Your task to perform on an android device: set an alarm Image 0: 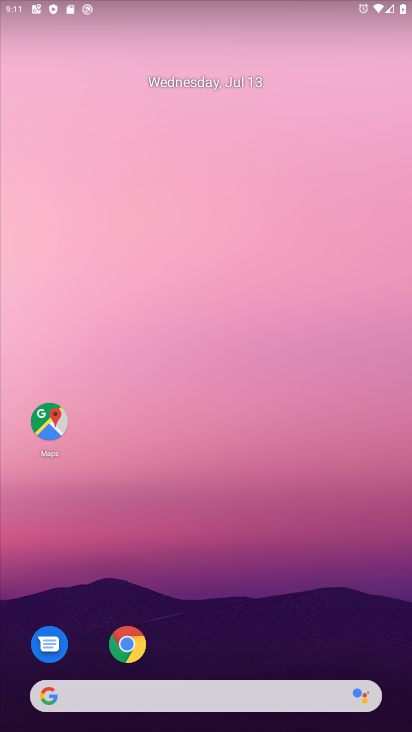
Step 0: drag from (225, 728) to (201, 139)
Your task to perform on an android device: set an alarm Image 1: 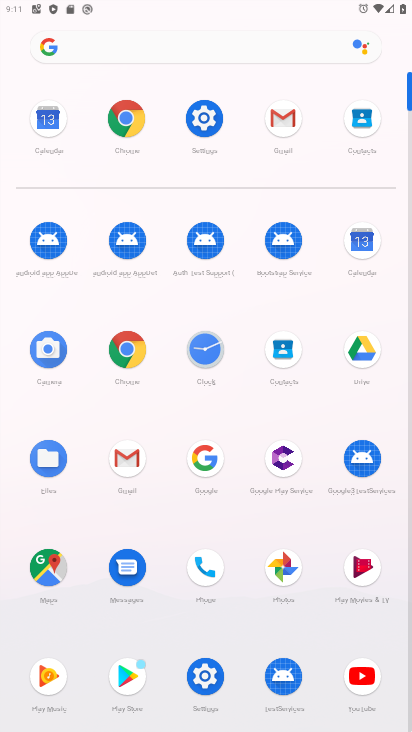
Step 1: click (206, 349)
Your task to perform on an android device: set an alarm Image 2: 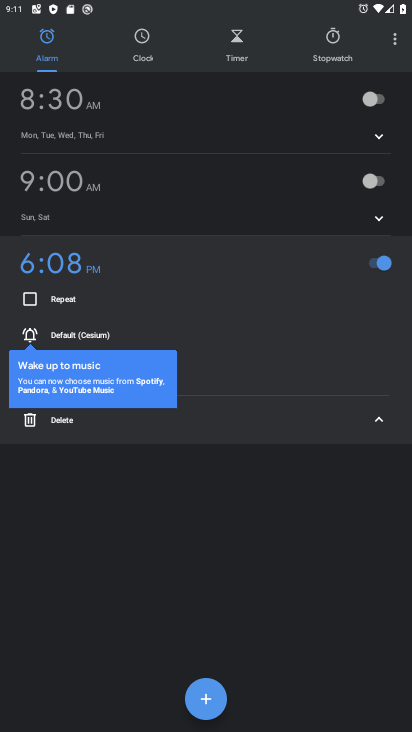
Step 2: click (208, 697)
Your task to perform on an android device: set an alarm Image 3: 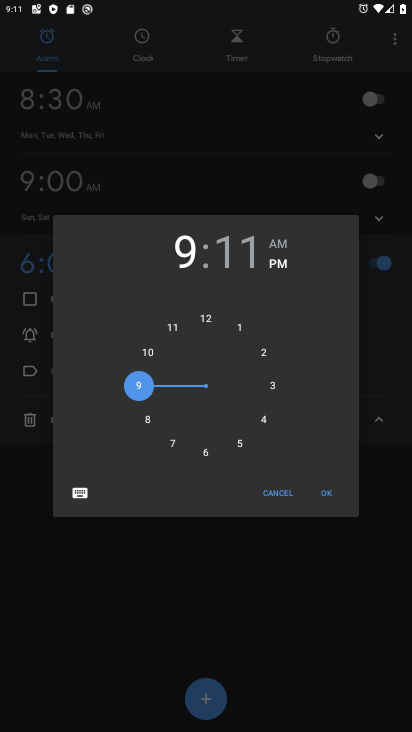
Step 3: click (208, 452)
Your task to perform on an android device: set an alarm Image 4: 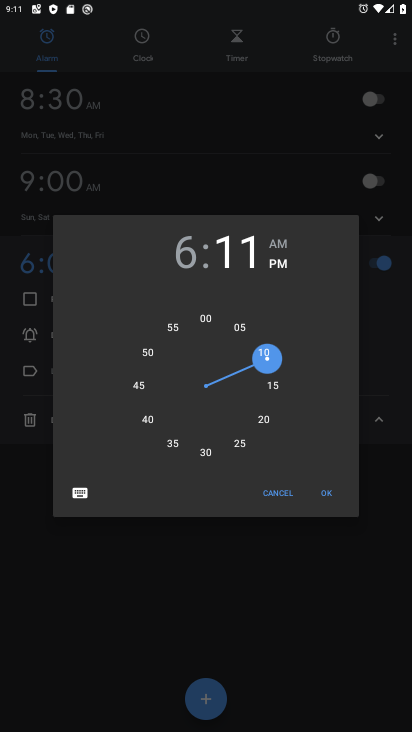
Step 4: click (327, 492)
Your task to perform on an android device: set an alarm Image 5: 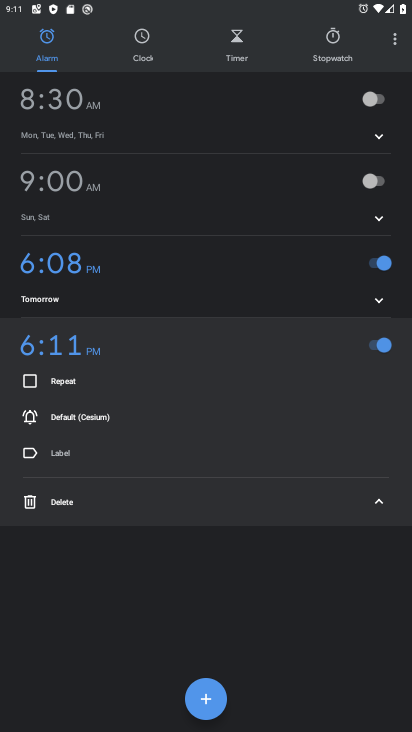
Step 5: task complete